Your task to perform on an android device: install app "DoorDash - Dasher" Image 0: 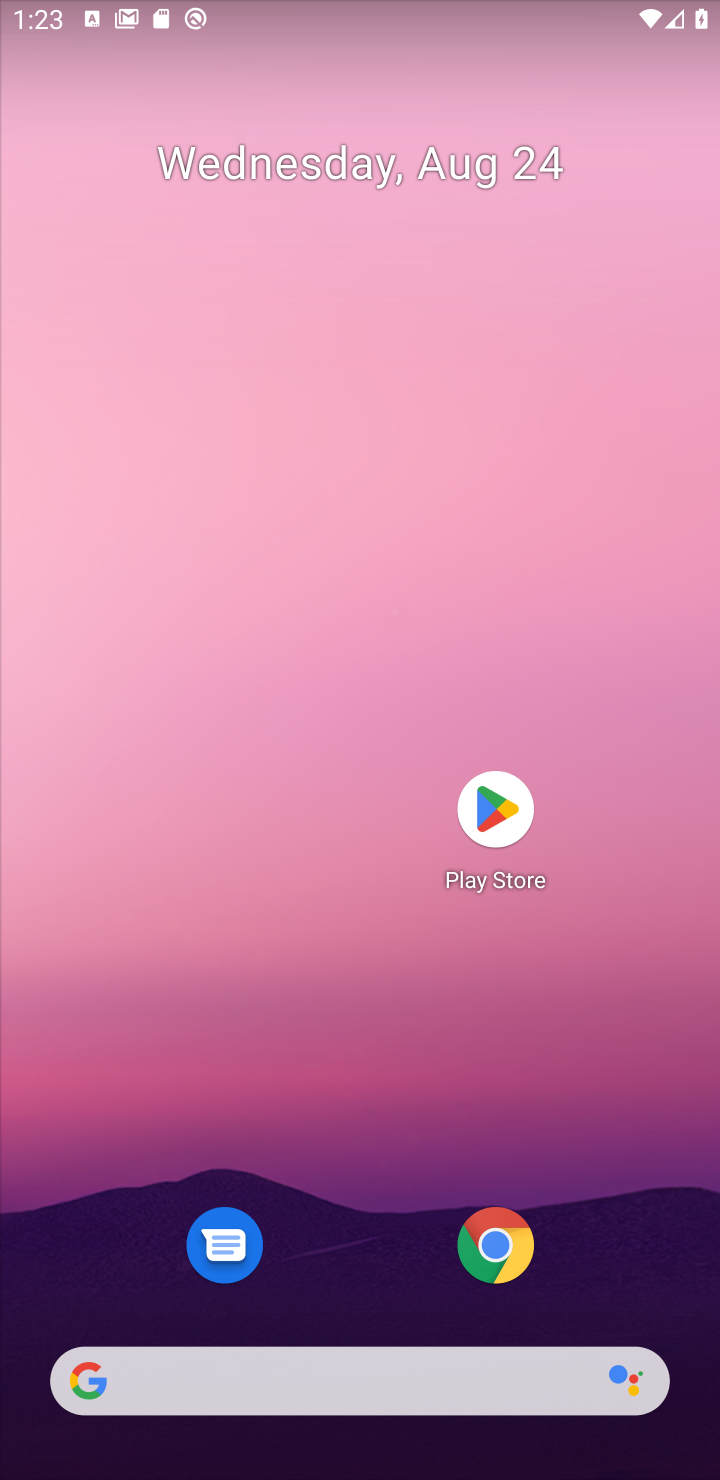
Step 0: click (500, 808)
Your task to perform on an android device: install app "DoorDash - Dasher" Image 1: 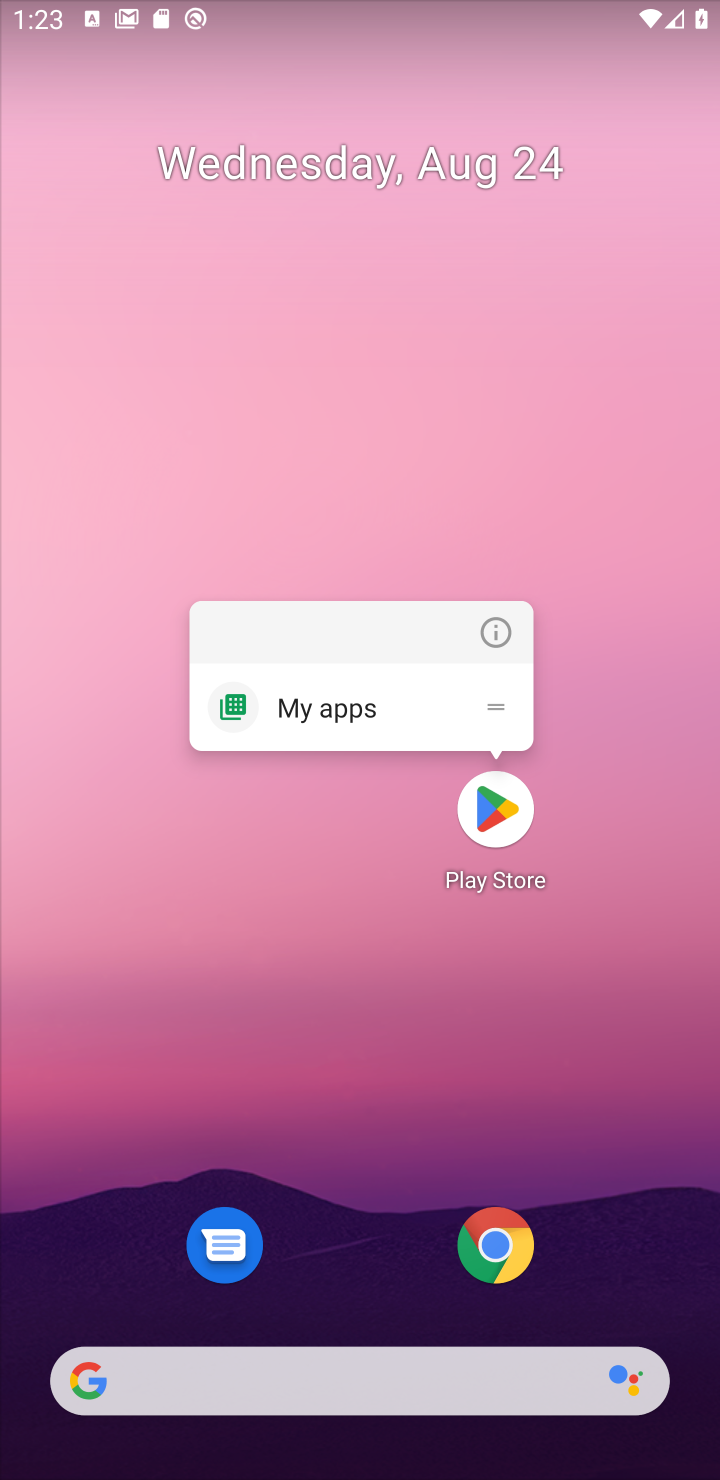
Step 1: click (488, 803)
Your task to perform on an android device: install app "DoorDash - Dasher" Image 2: 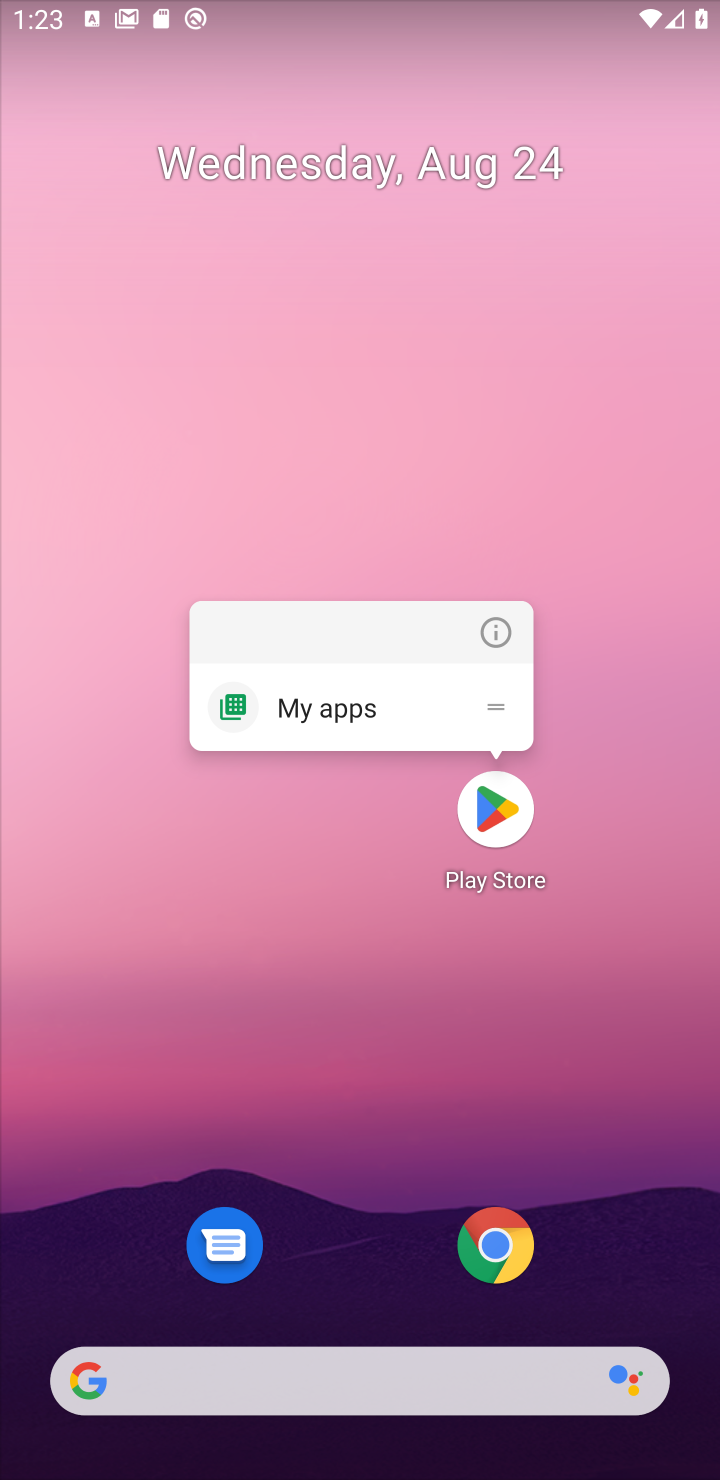
Step 2: click (488, 805)
Your task to perform on an android device: install app "DoorDash - Dasher" Image 3: 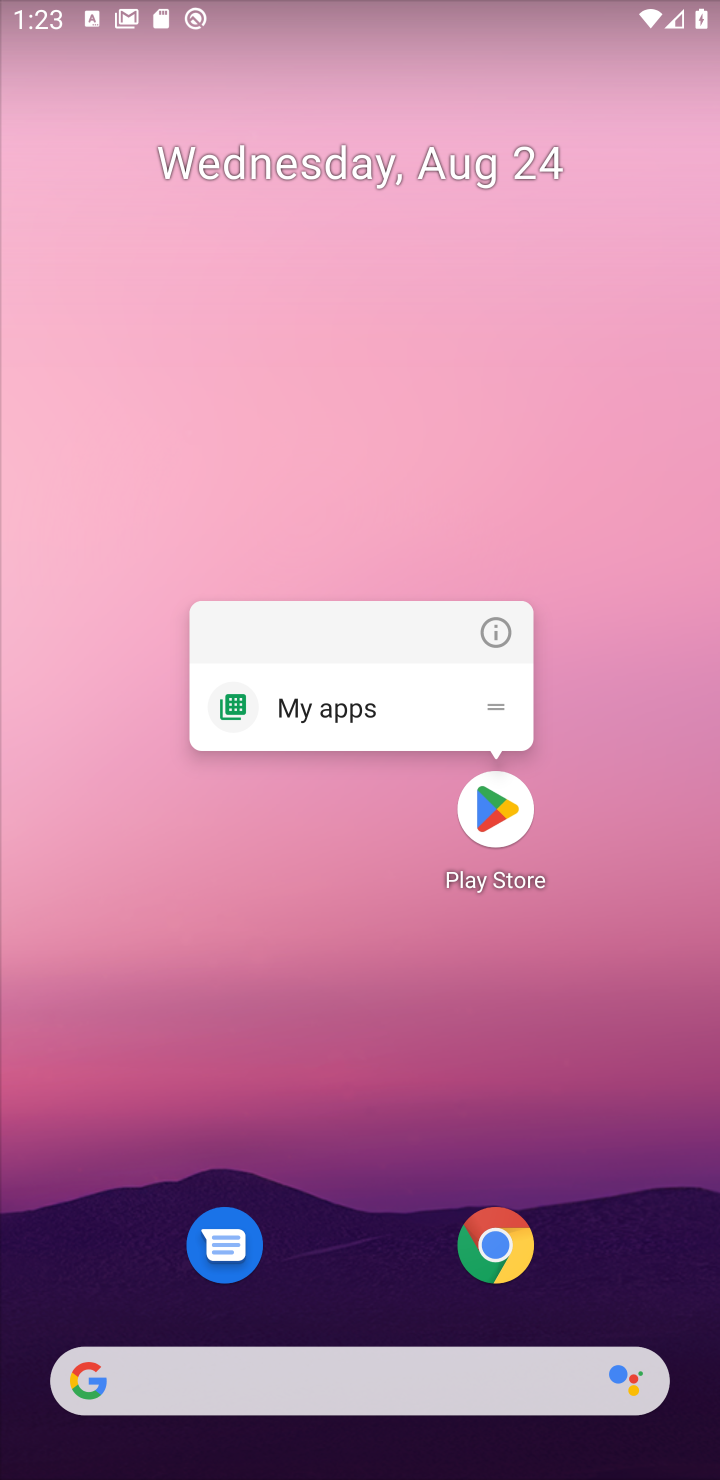
Step 3: click (488, 805)
Your task to perform on an android device: install app "DoorDash - Dasher" Image 4: 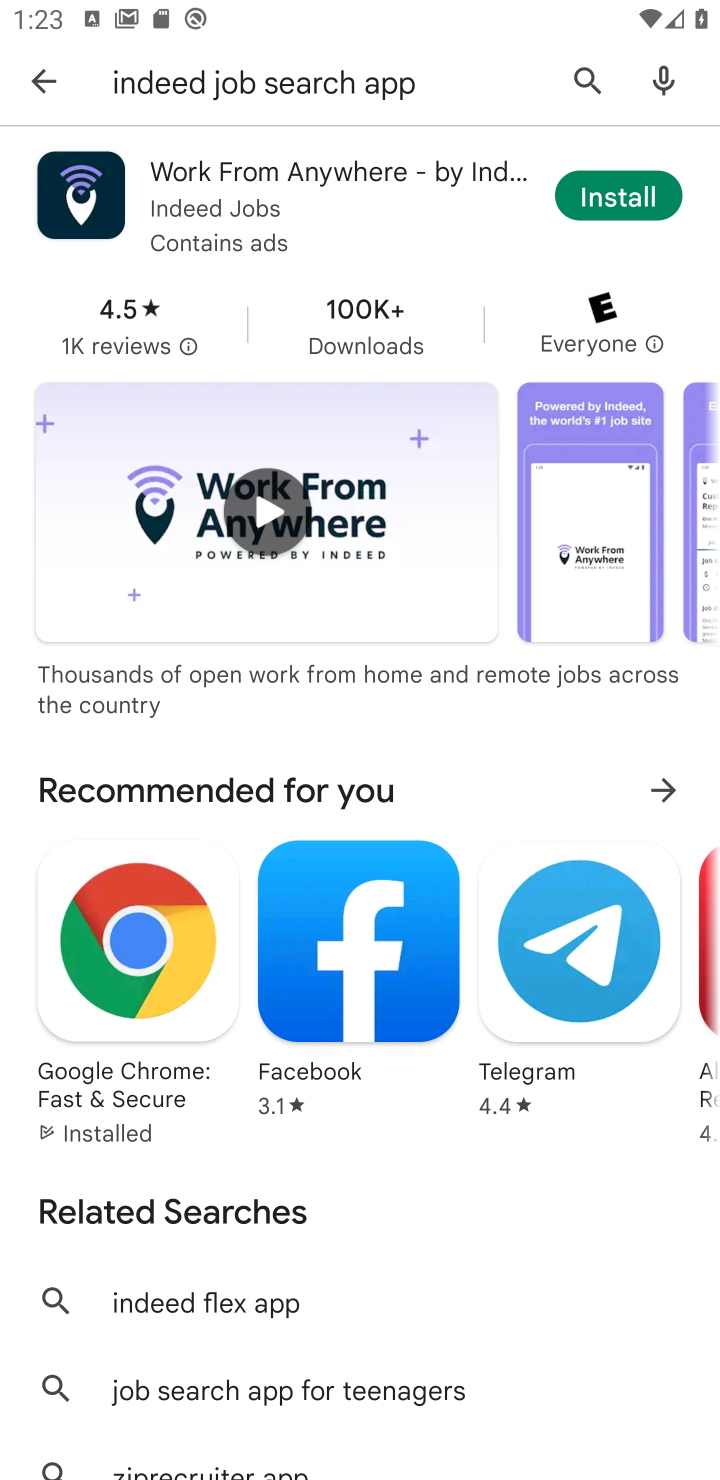
Step 4: click (588, 67)
Your task to perform on an android device: install app "DoorDash - Dasher" Image 5: 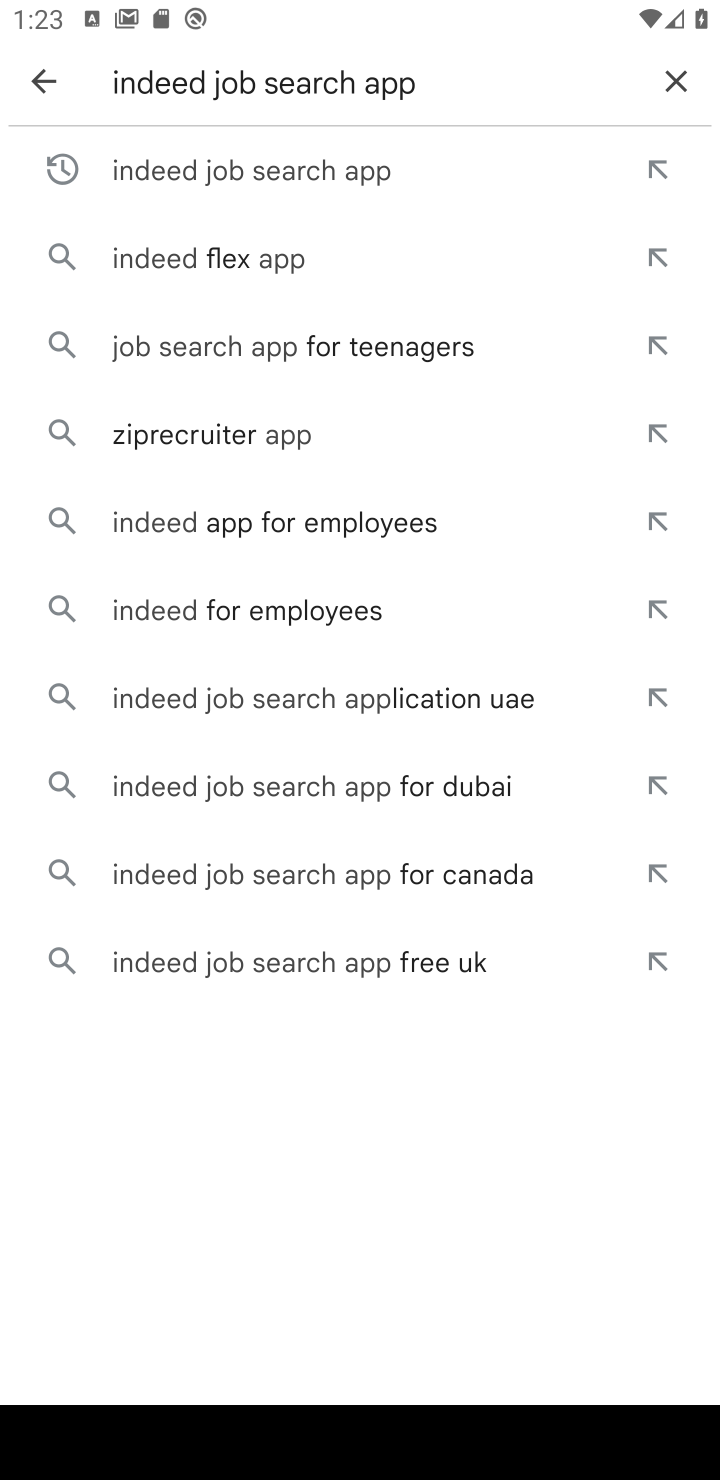
Step 5: click (677, 70)
Your task to perform on an android device: install app "DoorDash - Dasher" Image 6: 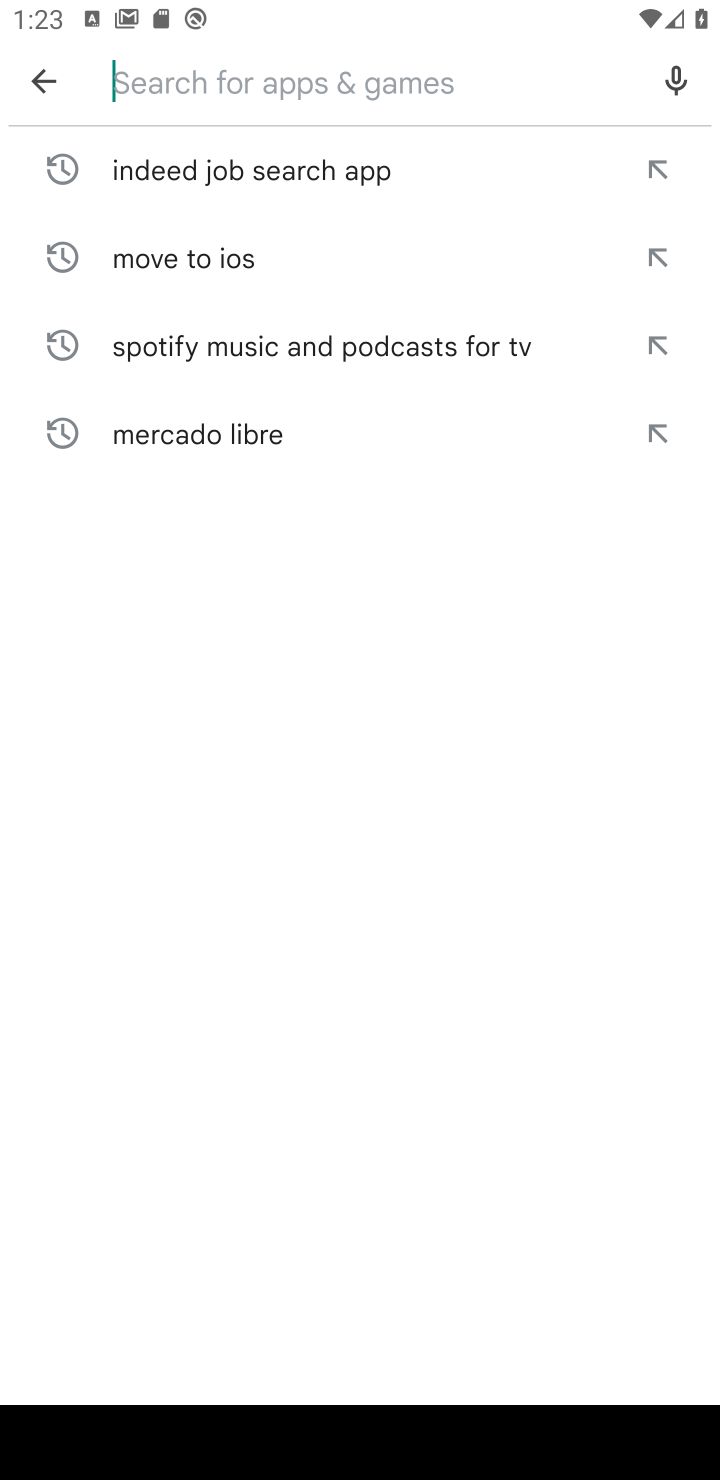
Step 6: type "DoorDash - Dasher"
Your task to perform on an android device: install app "DoorDash - Dasher" Image 7: 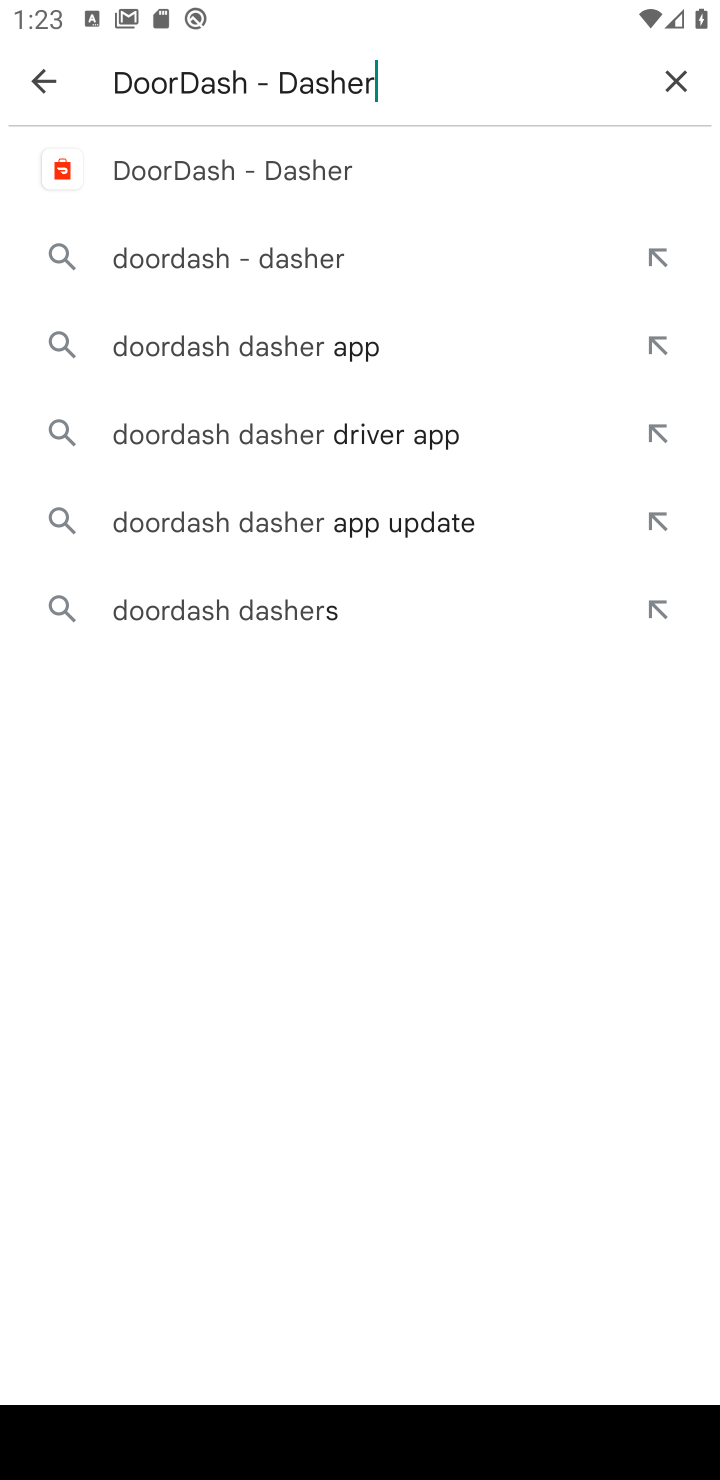
Step 7: click (253, 160)
Your task to perform on an android device: install app "DoorDash - Dasher" Image 8: 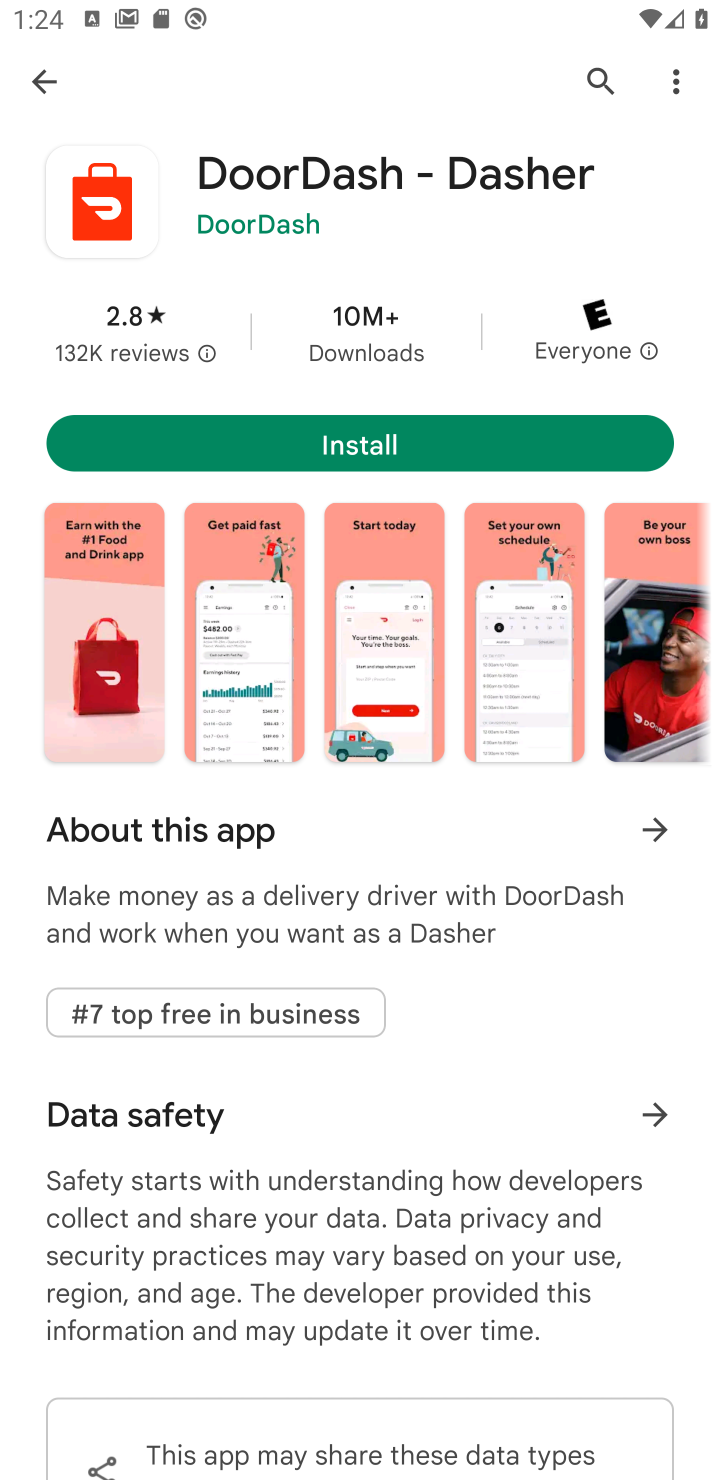
Step 8: click (365, 441)
Your task to perform on an android device: install app "DoorDash - Dasher" Image 9: 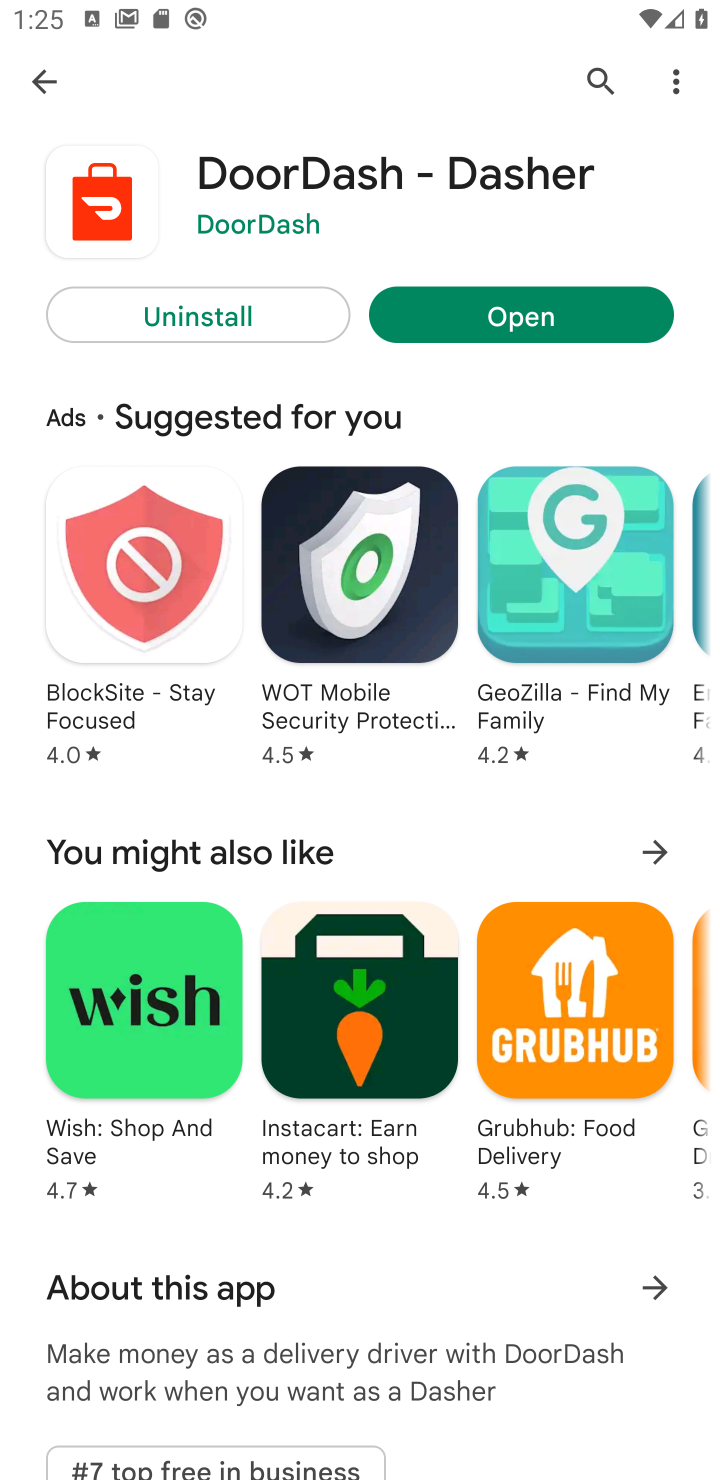
Step 9: click (562, 319)
Your task to perform on an android device: install app "DoorDash - Dasher" Image 10: 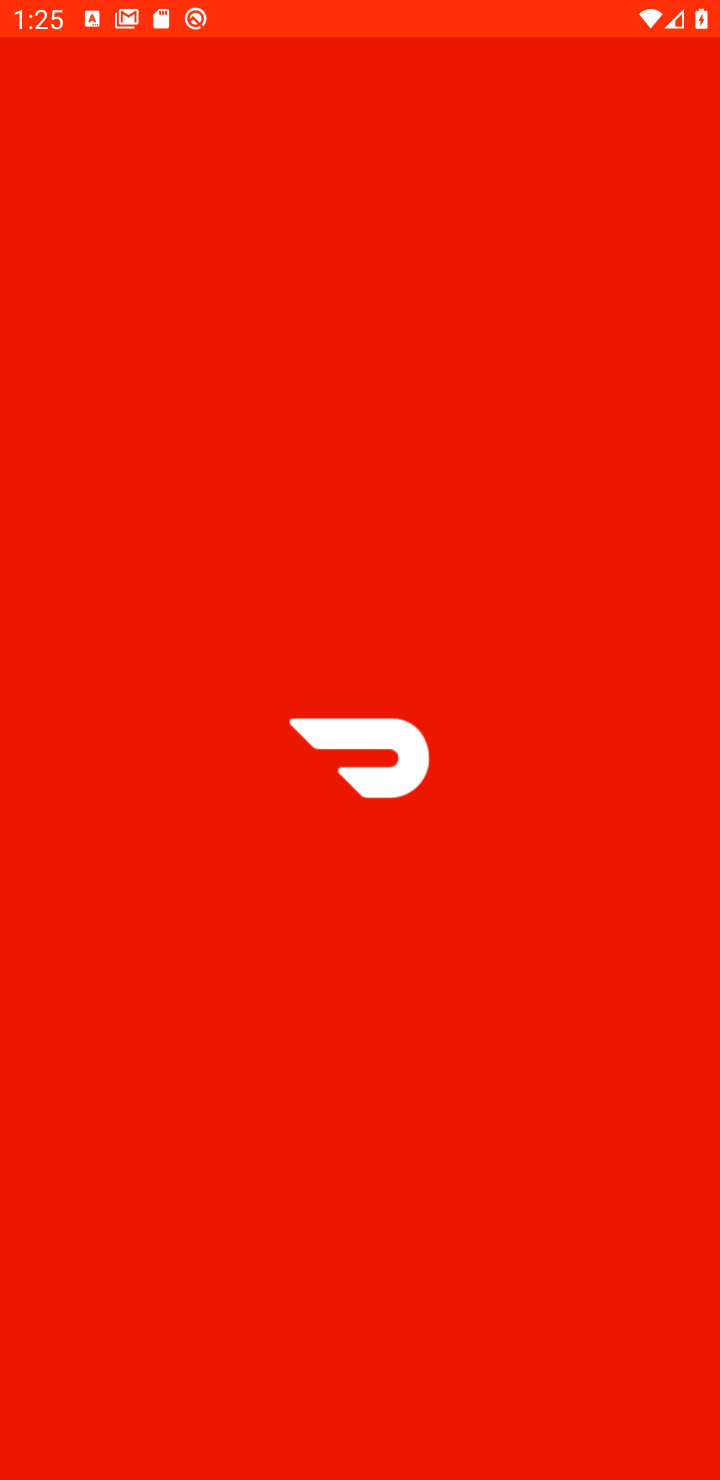
Step 10: task complete